Your task to perform on an android device: change alarm snooze length Image 0: 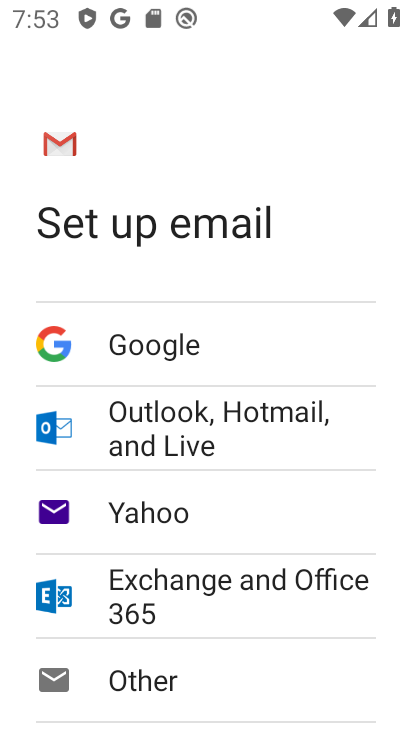
Step 0: press home button
Your task to perform on an android device: change alarm snooze length Image 1: 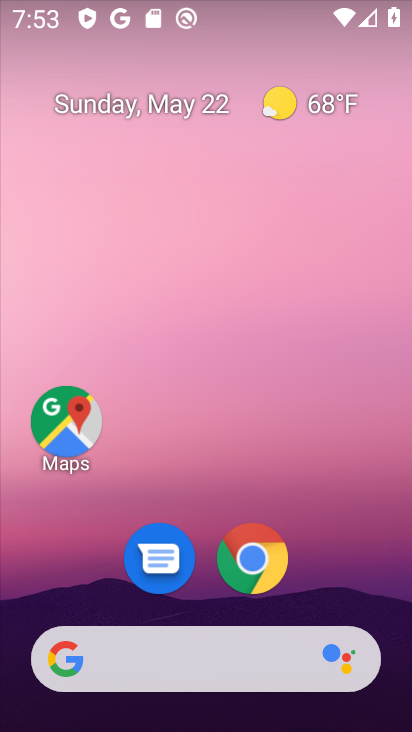
Step 1: drag from (294, 631) to (324, 364)
Your task to perform on an android device: change alarm snooze length Image 2: 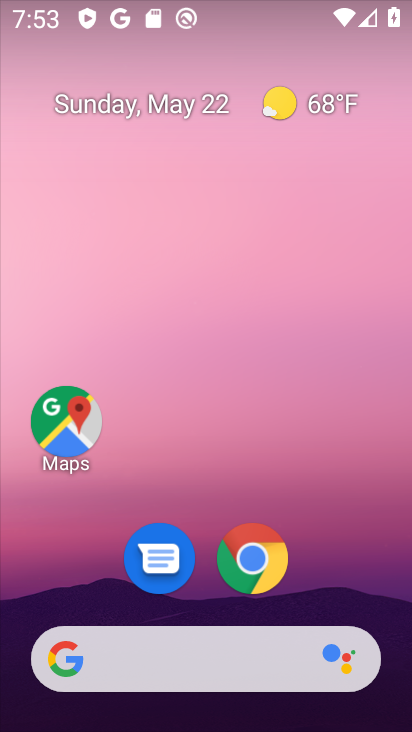
Step 2: drag from (303, 622) to (322, 251)
Your task to perform on an android device: change alarm snooze length Image 3: 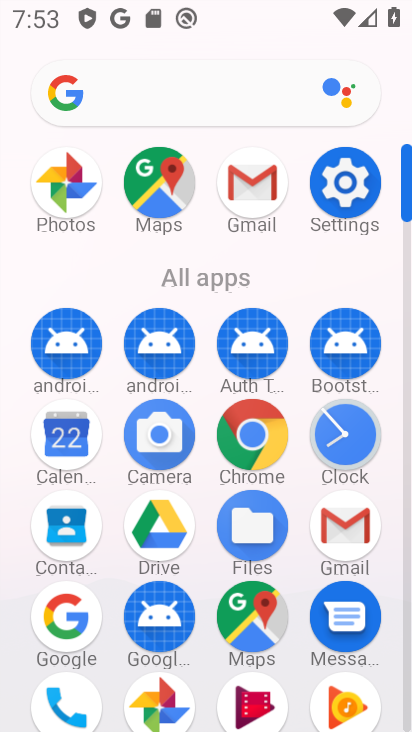
Step 3: click (323, 177)
Your task to perform on an android device: change alarm snooze length Image 4: 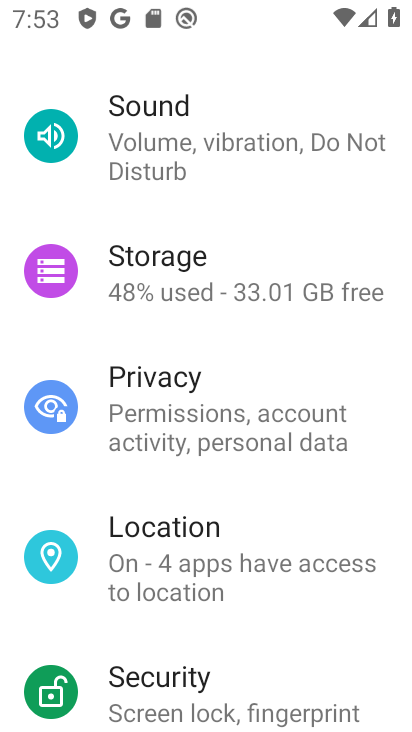
Step 4: press home button
Your task to perform on an android device: change alarm snooze length Image 5: 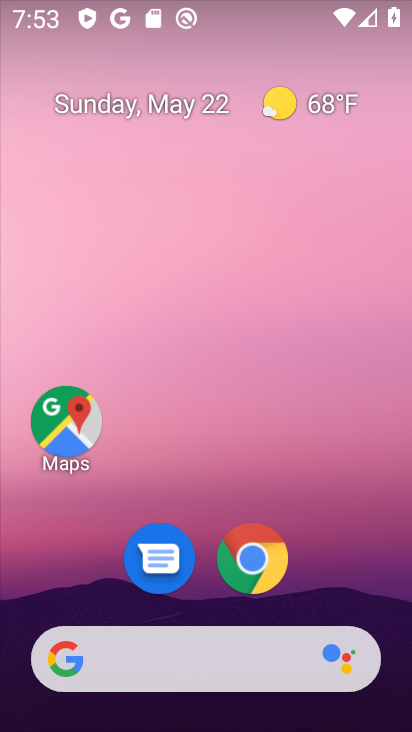
Step 5: drag from (341, 585) to (321, 227)
Your task to perform on an android device: change alarm snooze length Image 6: 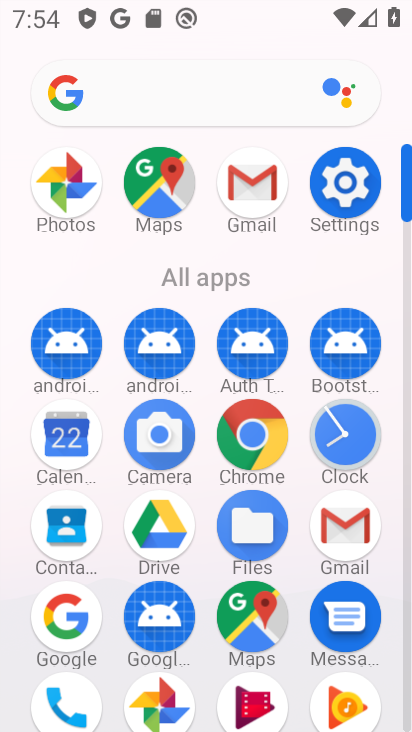
Step 6: click (355, 427)
Your task to perform on an android device: change alarm snooze length Image 7: 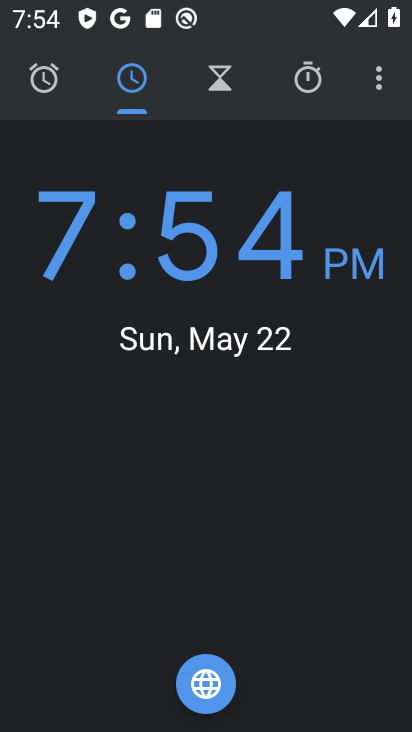
Step 7: click (40, 67)
Your task to perform on an android device: change alarm snooze length Image 8: 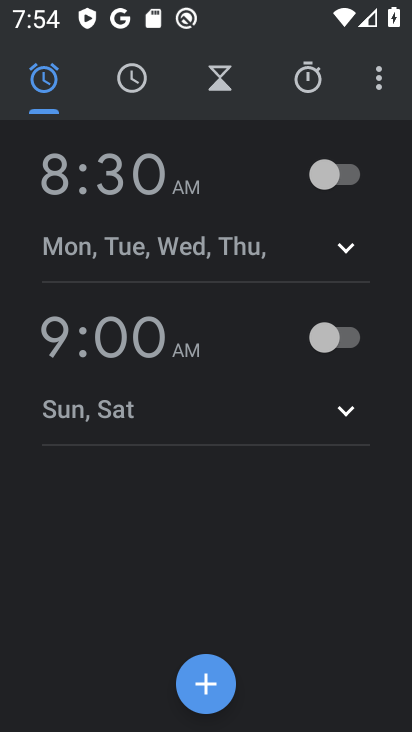
Step 8: click (378, 62)
Your task to perform on an android device: change alarm snooze length Image 9: 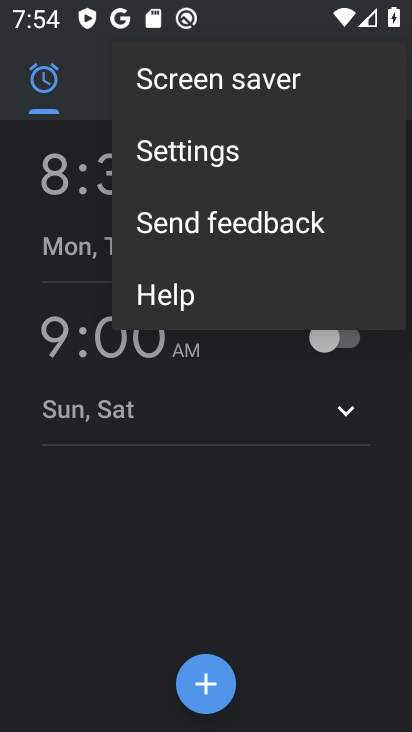
Step 9: click (204, 163)
Your task to perform on an android device: change alarm snooze length Image 10: 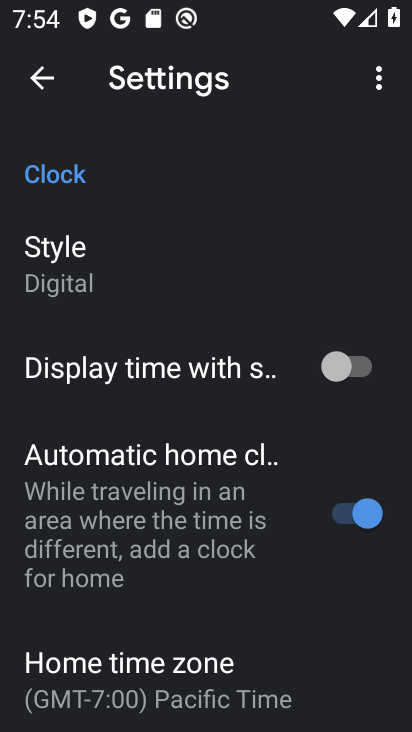
Step 10: drag from (243, 602) to (270, 201)
Your task to perform on an android device: change alarm snooze length Image 11: 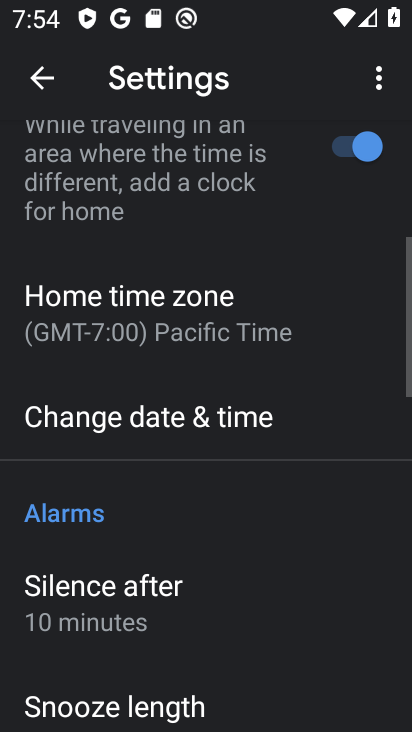
Step 11: drag from (182, 658) to (235, 357)
Your task to perform on an android device: change alarm snooze length Image 12: 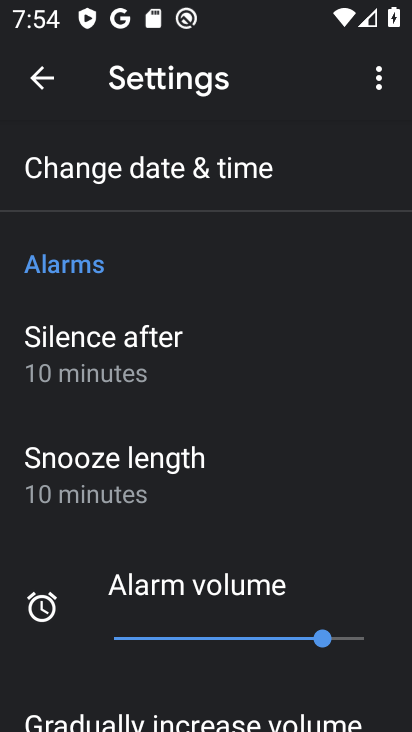
Step 12: click (159, 469)
Your task to perform on an android device: change alarm snooze length Image 13: 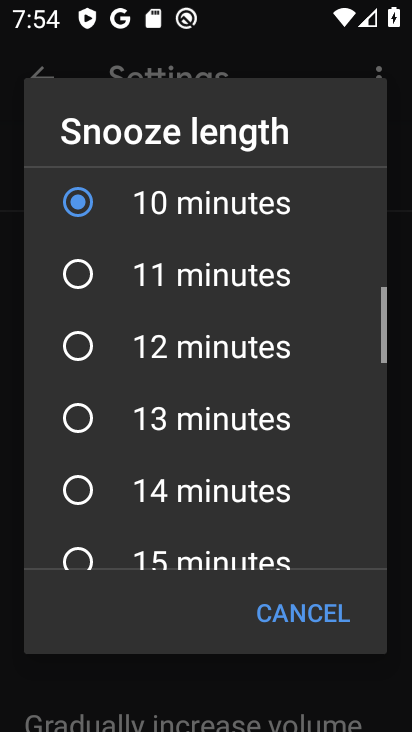
Step 13: drag from (185, 522) to (260, 280)
Your task to perform on an android device: change alarm snooze length Image 14: 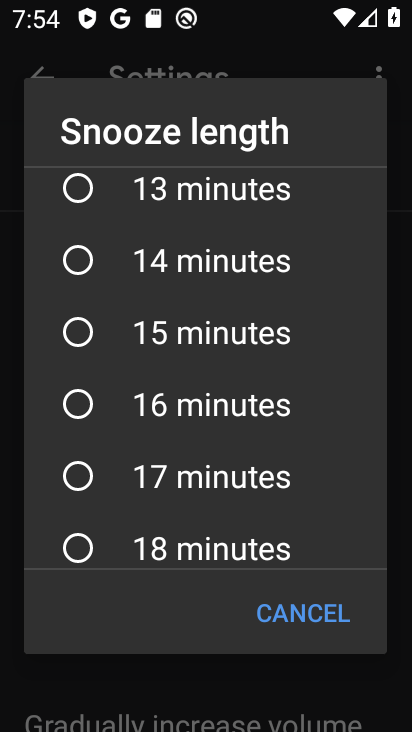
Step 14: click (187, 485)
Your task to perform on an android device: change alarm snooze length Image 15: 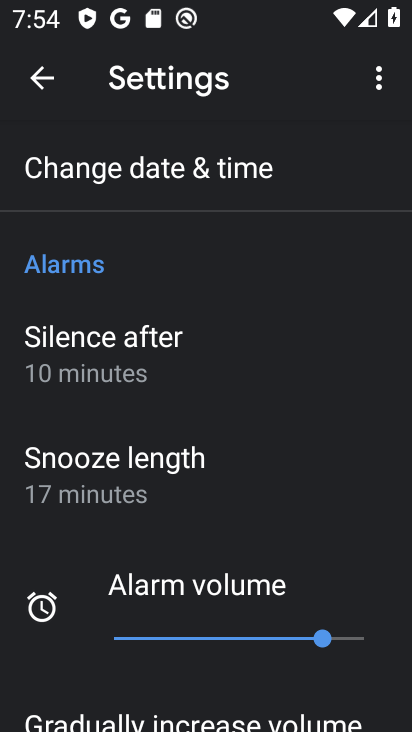
Step 15: task complete